Your task to perform on an android device: Go to location settings Image 0: 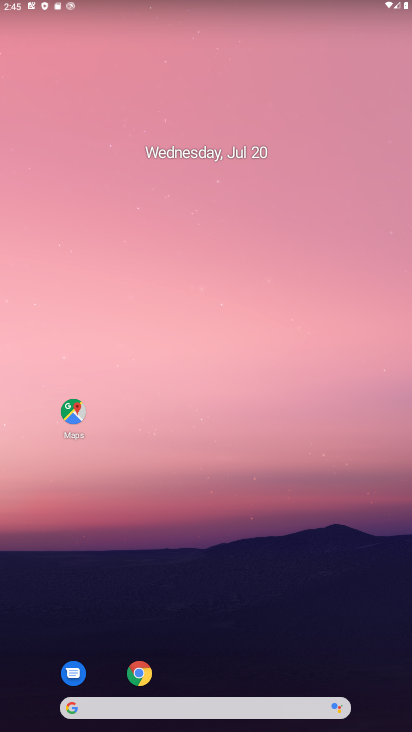
Step 0: drag from (327, 614) to (188, 19)
Your task to perform on an android device: Go to location settings Image 1: 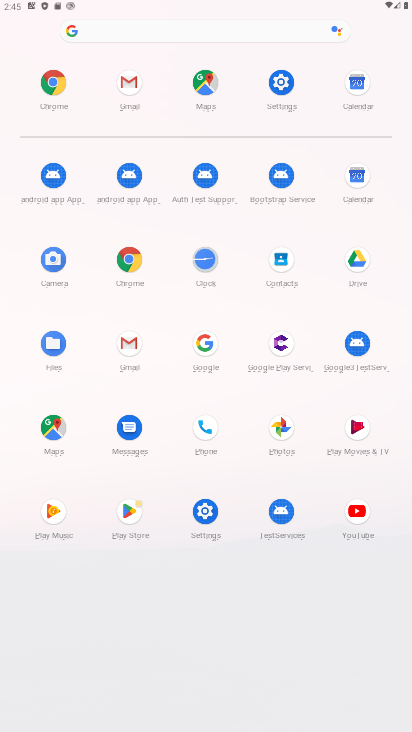
Step 1: click (204, 515)
Your task to perform on an android device: Go to location settings Image 2: 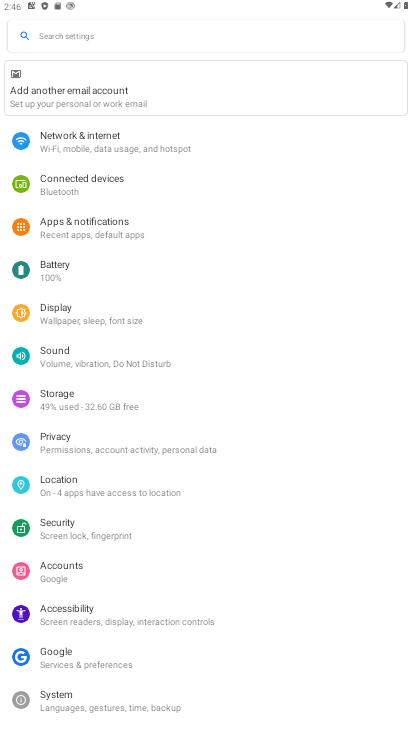
Step 2: click (118, 480)
Your task to perform on an android device: Go to location settings Image 3: 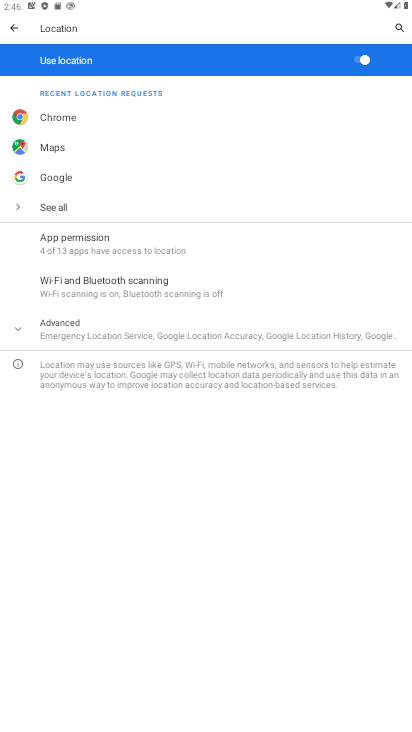
Step 3: task complete